Your task to perform on an android device: open app "TextNow: Call + Text Unlimited" Image 0: 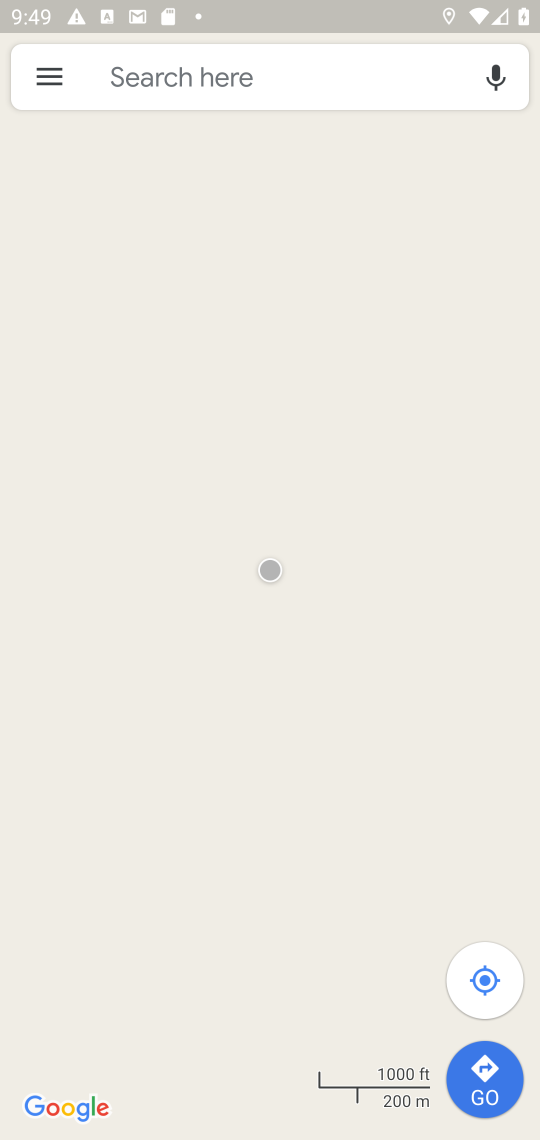
Step 0: click (285, 1088)
Your task to perform on an android device: open app "TextNow: Call + Text Unlimited" Image 1: 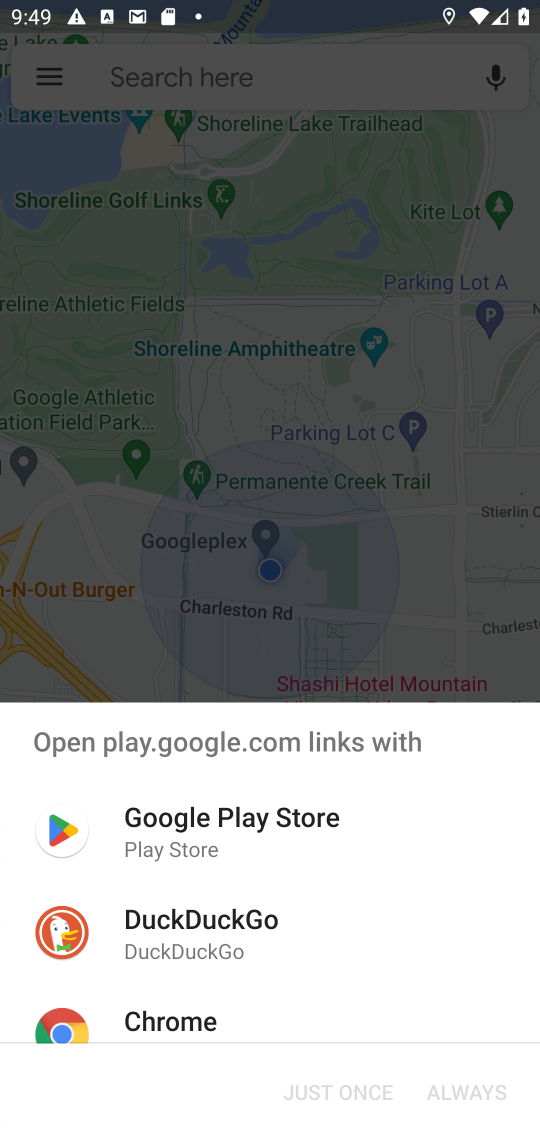
Step 1: press home button
Your task to perform on an android device: open app "TextNow: Call + Text Unlimited" Image 2: 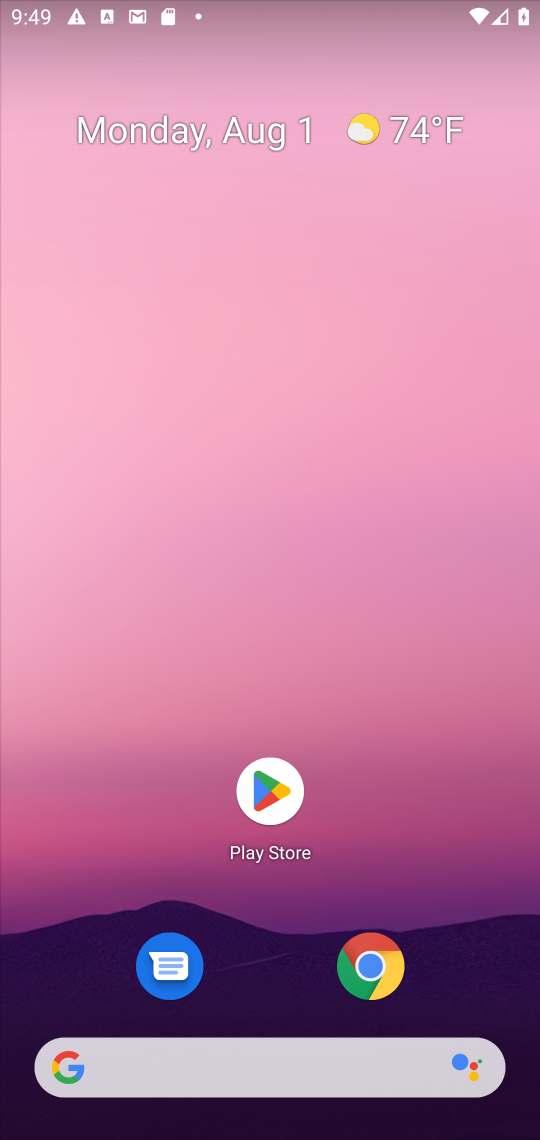
Step 2: click (279, 788)
Your task to perform on an android device: open app "TextNow: Call + Text Unlimited" Image 3: 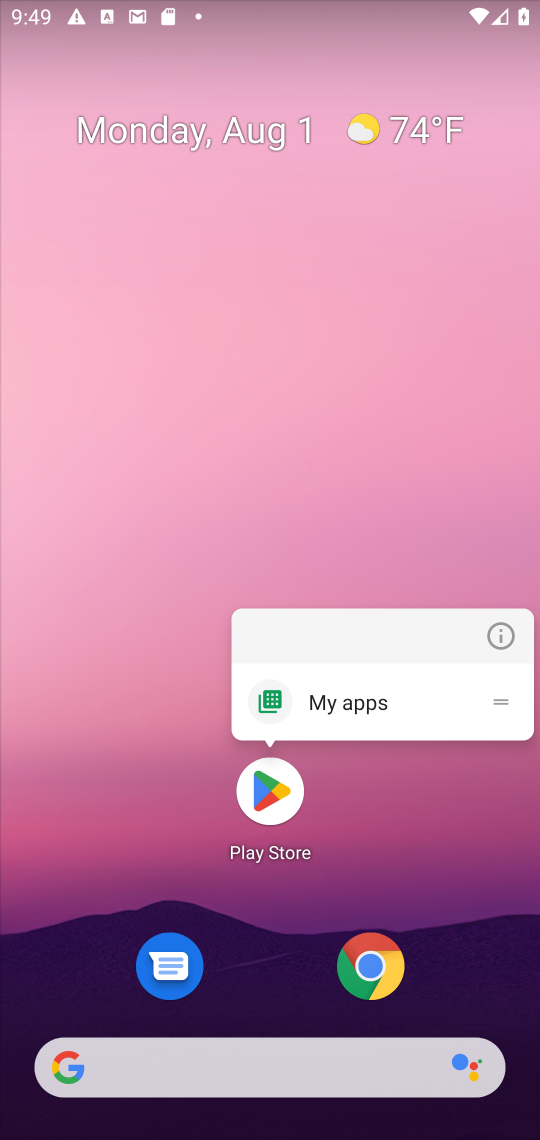
Step 3: click (239, 807)
Your task to perform on an android device: open app "TextNow: Call + Text Unlimited" Image 4: 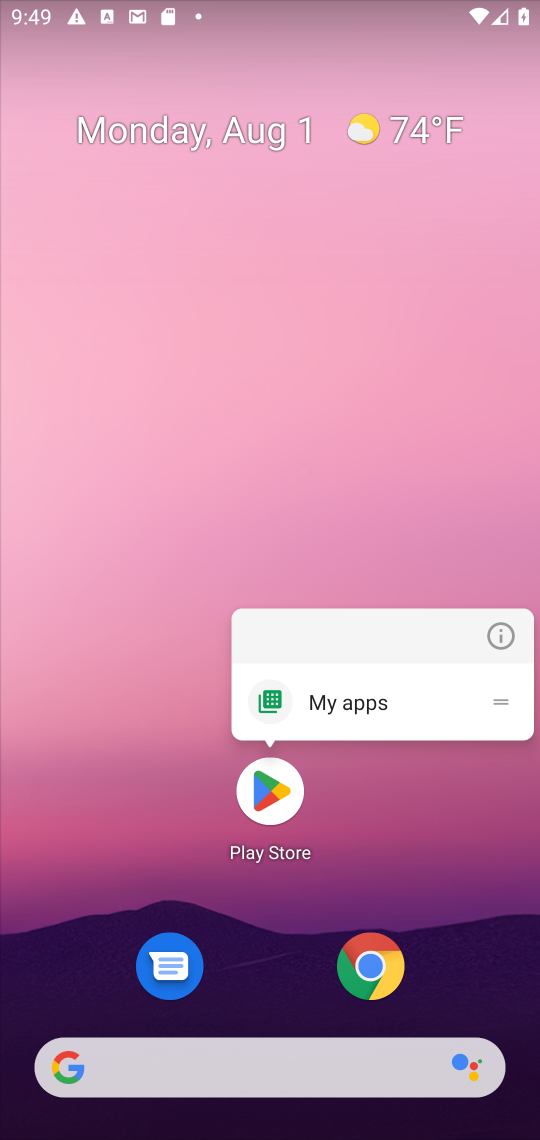
Step 4: click (275, 802)
Your task to perform on an android device: open app "TextNow: Call + Text Unlimited" Image 5: 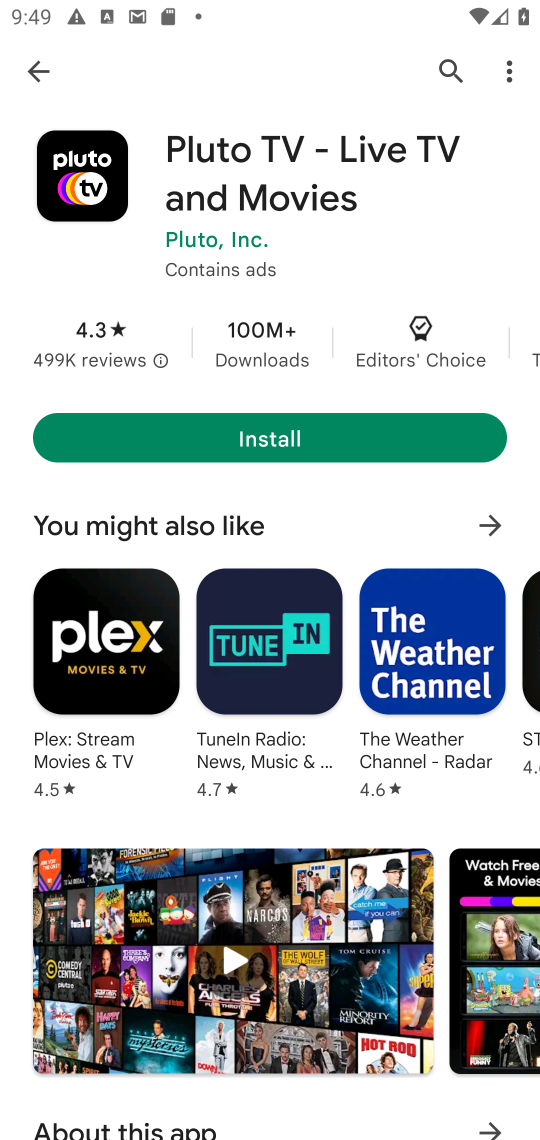
Step 5: click (454, 70)
Your task to perform on an android device: open app "TextNow: Call + Text Unlimited" Image 6: 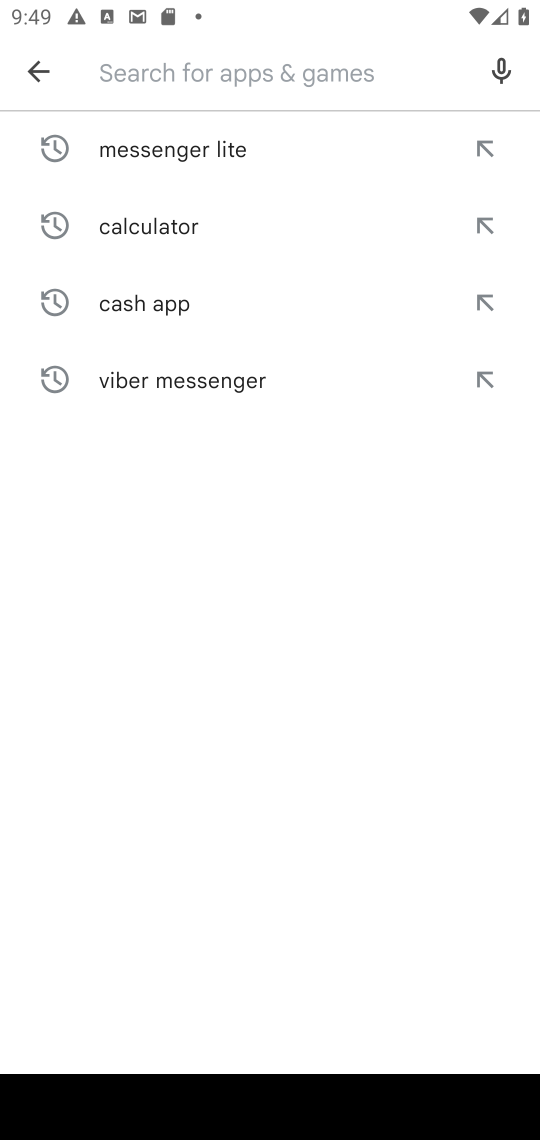
Step 6: type "TextNow: Call + Text Unlimited"
Your task to perform on an android device: open app "TextNow: Call + Text Unlimited" Image 7: 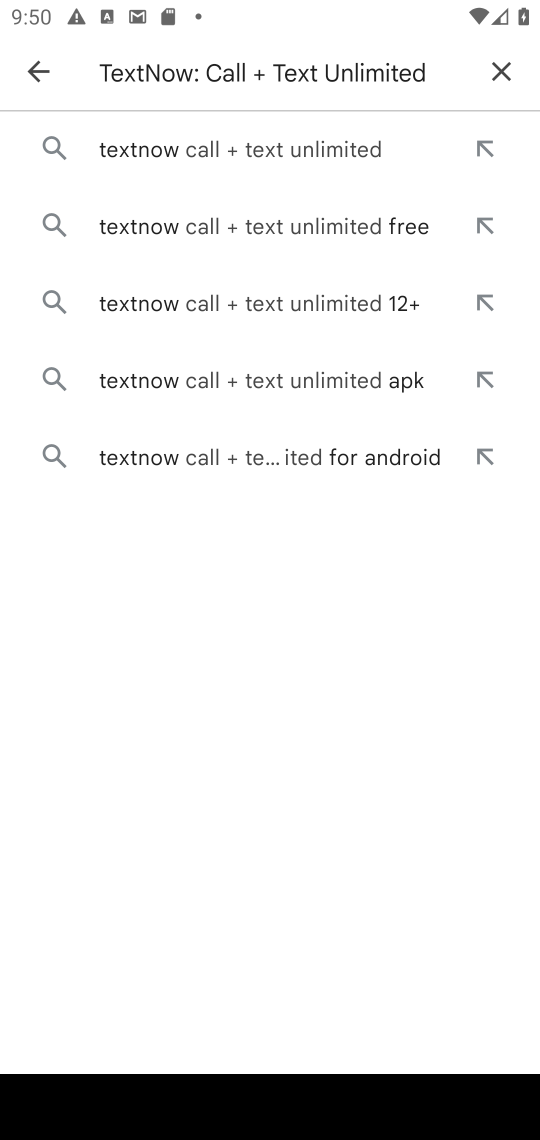
Step 7: click (308, 137)
Your task to perform on an android device: open app "TextNow: Call + Text Unlimited" Image 8: 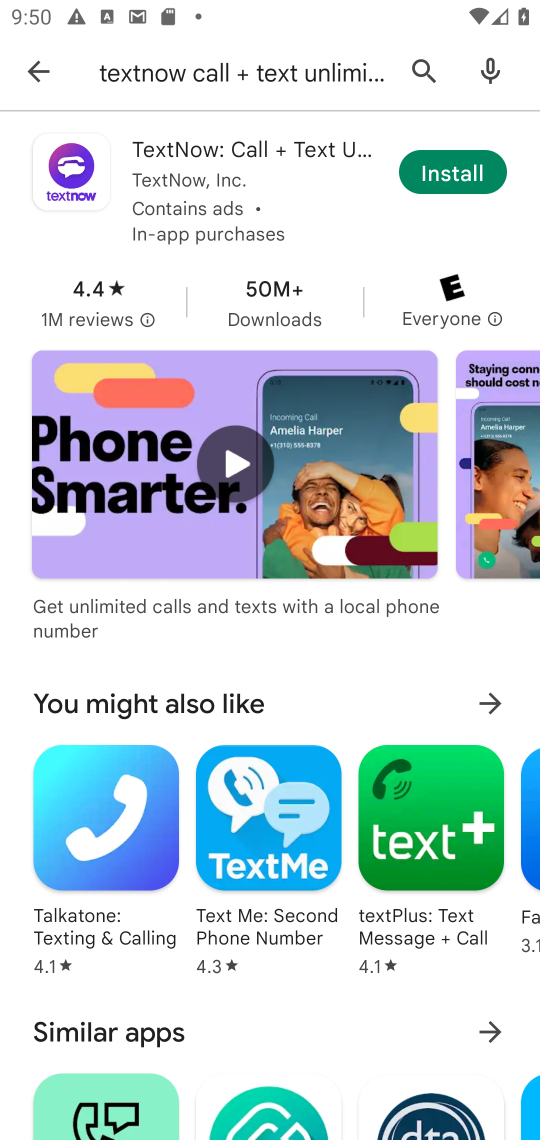
Step 8: task complete